Your task to perform on an android device: change the upload size in google photos Image 0: 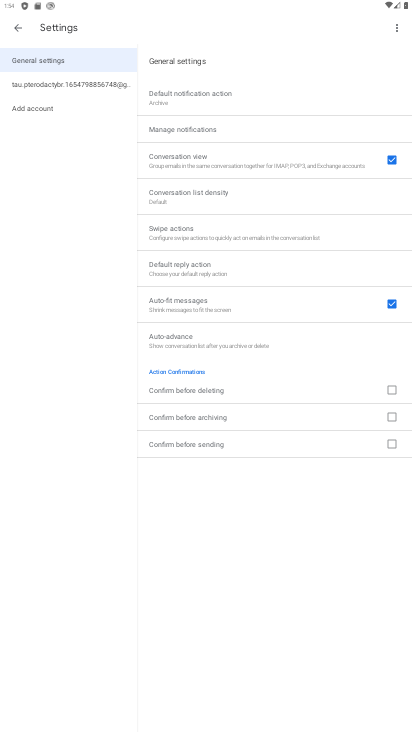
Step 0: press home button
Your task to perform on an android device: change the upload size in google photos Image 1: 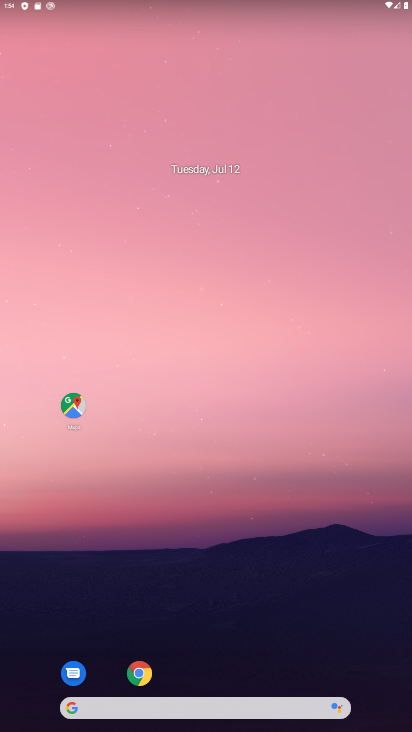
Step 1: drag from (282, 588) to (264, 124)
Your task to perform on an android device: change the upload size in google photos Image 2: 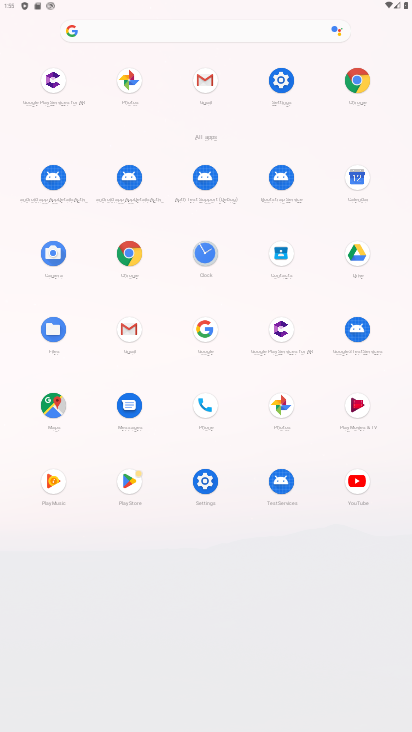
Step 2: click (275, 395)
Your task to perform on an android device: change the upload size in google photos Image 3: 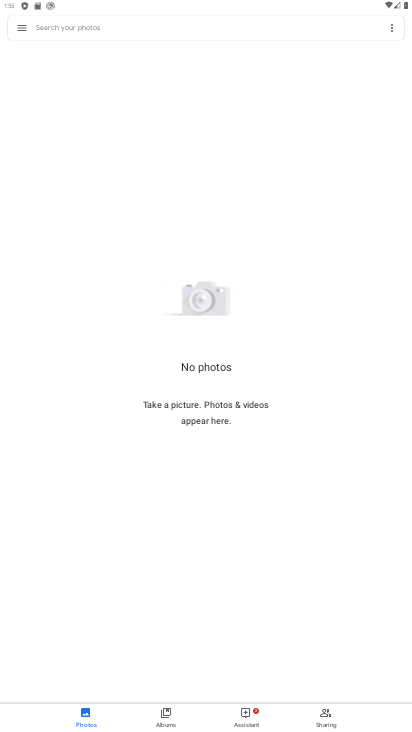
Step 3: click (23, 27)
Your task to perform on an android device: change the upload size in google photos Image 4: 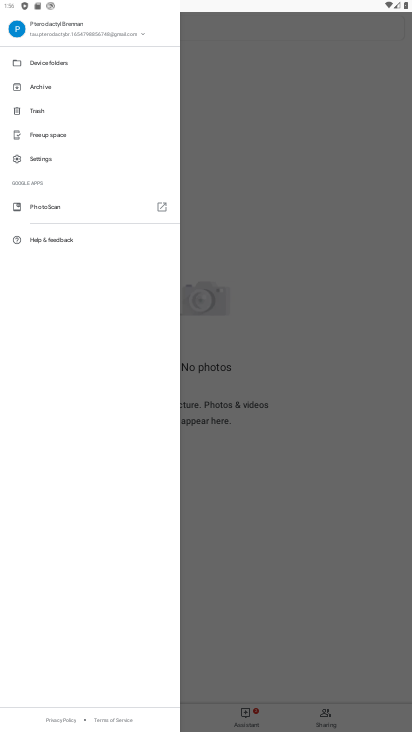
Step 4: click (53, 155)
Your task to perform on an android device: change the upload size in google photos Image 5: 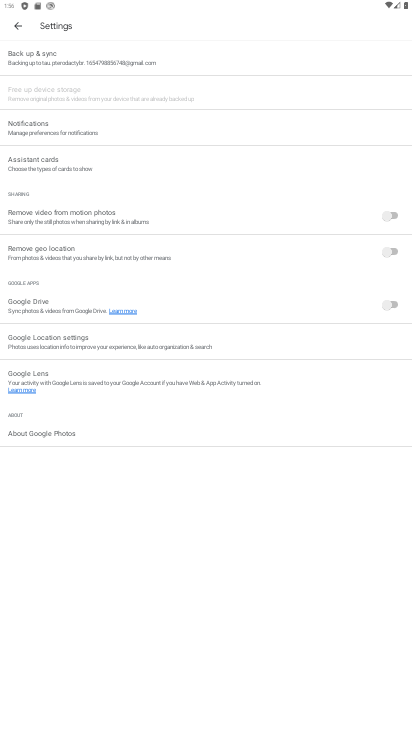
Step 5: click (93, 55)
Your task to perform on an android device: change the upload size in google photos Image 6: 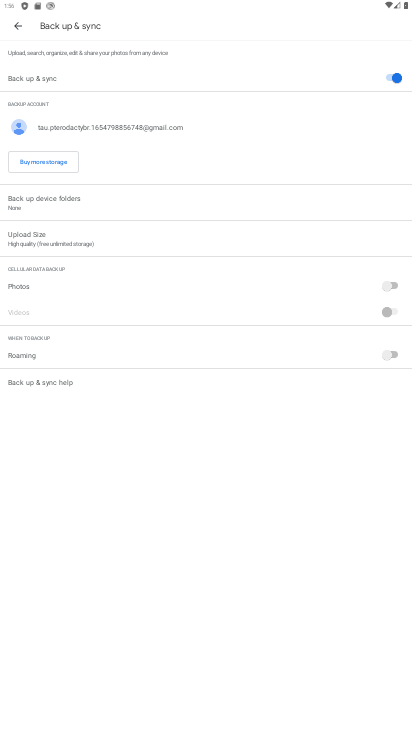
Step 6: click (49, 249)
Your task to perform on an android device: change the upload size in google photos Image 7: 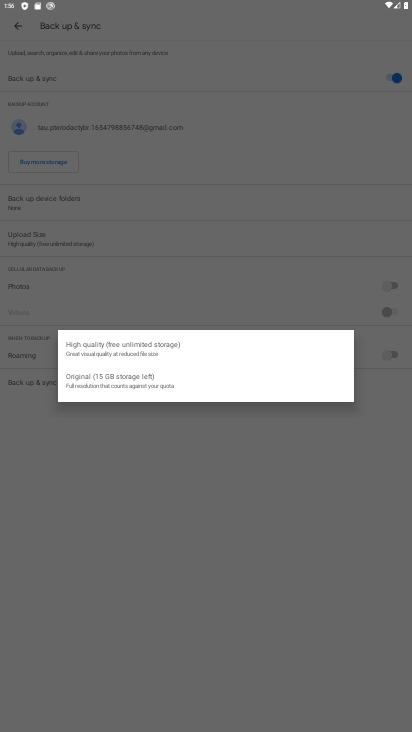
Step 7: click (122, 387)
Your task to perform on an android device: change the upload size in google photos Image 8: 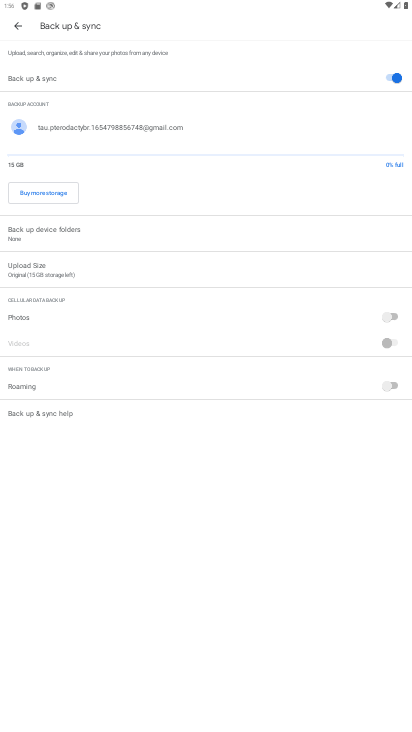
Step 8: task complete